Your task to perform on an android device: Open calendar and show me the fourth week of next month Image 0: 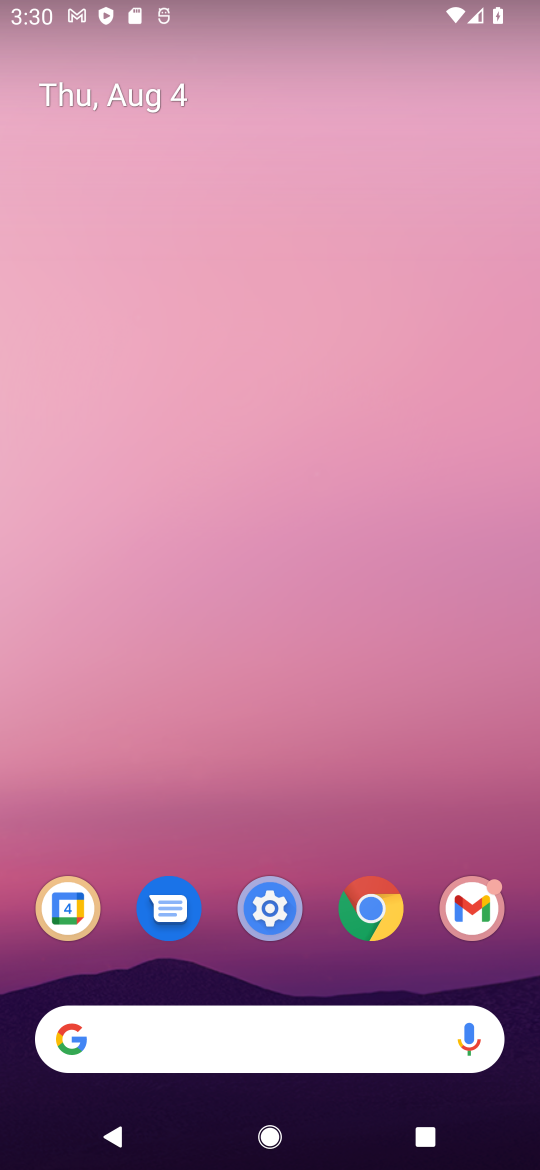
Step 0: click (71, 899)
Your task to perform on an android device: Open calendar and show me the fourth week of next month Image 1: 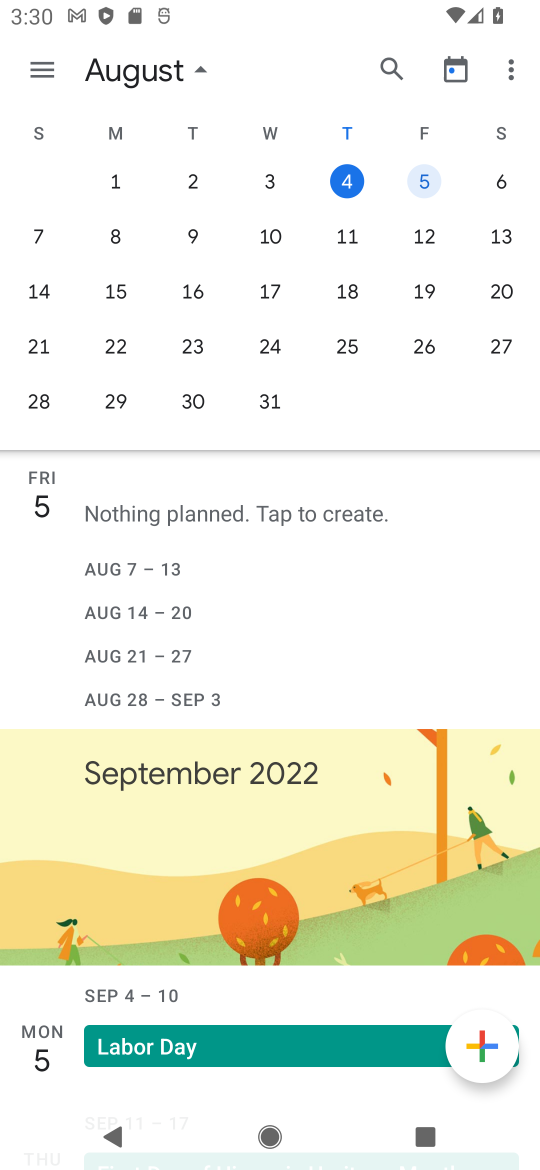
Step 1: drag from (468, 245) to (87, 241)
Your task to perform on an android device: Open calendar and show me the fourth week of next month Image 2: 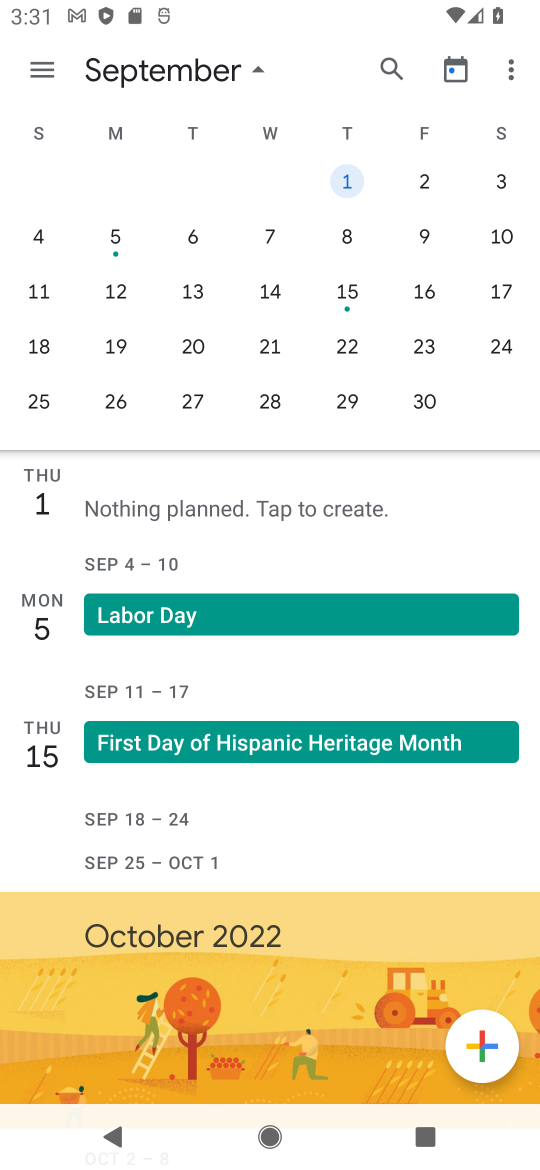
Step 2: click (46, 341)
Your task to perform on an android device: Open calendar and show me the fourth week of next month Image 3: 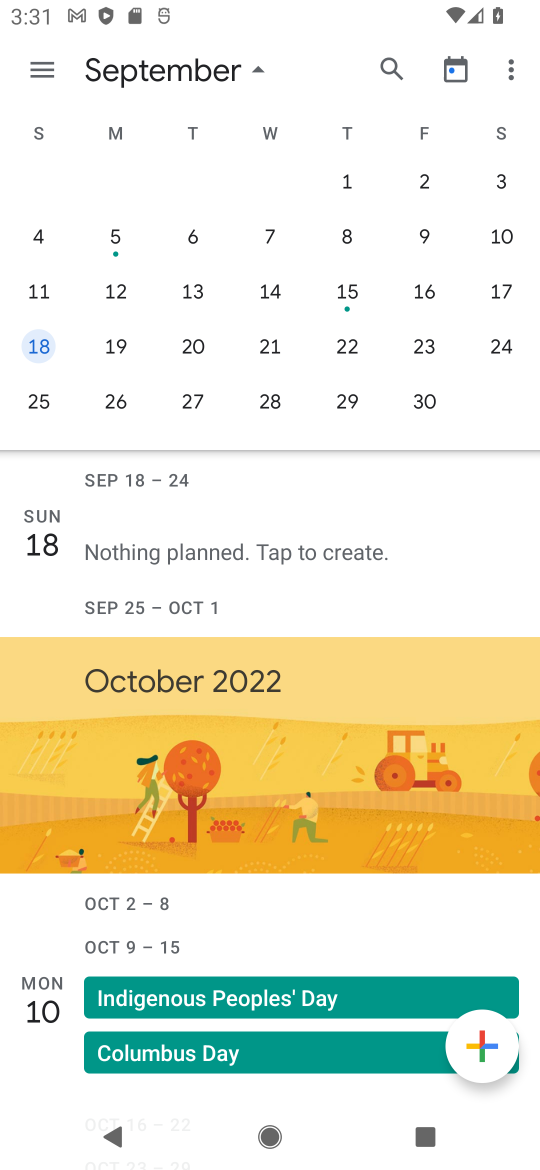
Step 3: task complete